Your task to perform on an android device: Turn off the flashlight Image 0: 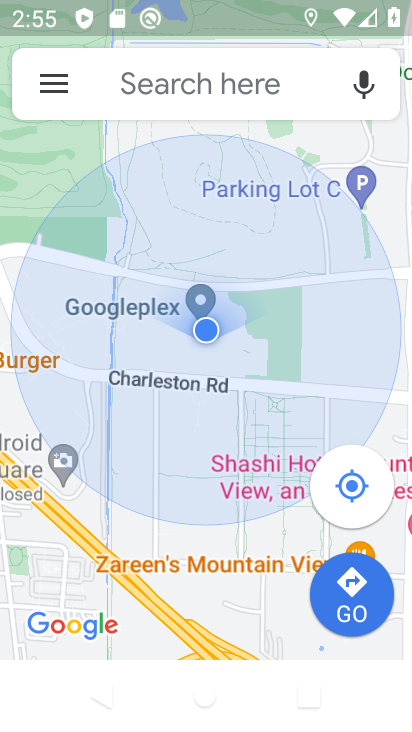
Step 0: press home button
Your task to perform on an android device: Turn off the flashlight Image 1: 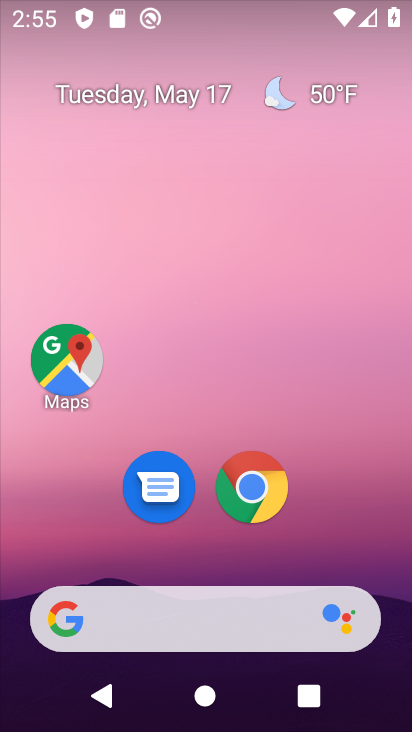
Step 1: drag from (228, 15) to (341, 554)
Your task to perform on an android device: Turn off the flashlight Image 2: 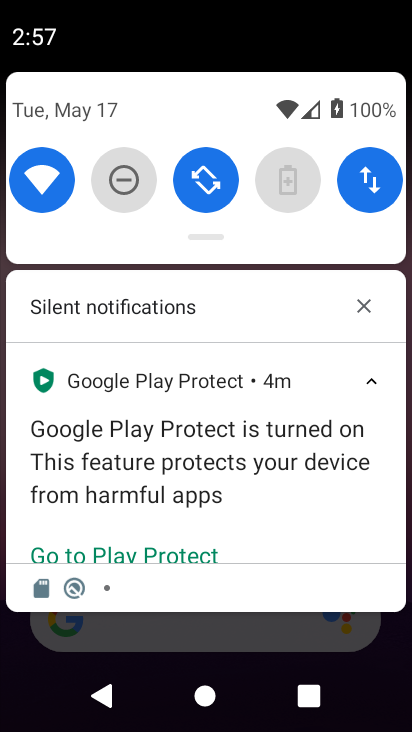
Step 2: drag from (201, 236) to (196, 446)
Your task to perform on an android device: Turn off the flashlight Image 3: 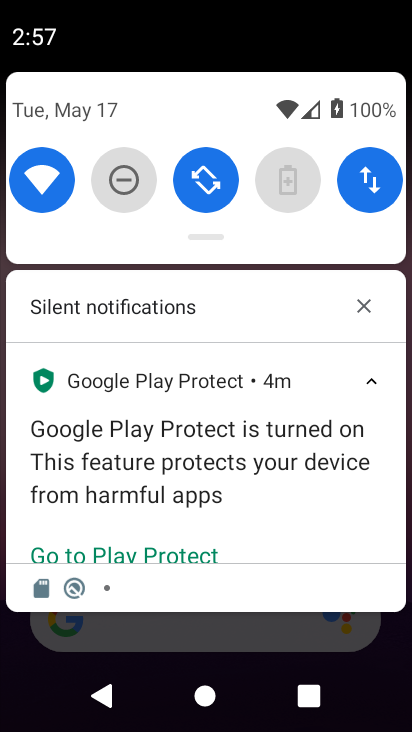
Step 3: drag from (208, 236) to (216, 594)
Your task to perform on an android device: Turn off the flashlight Image 4: 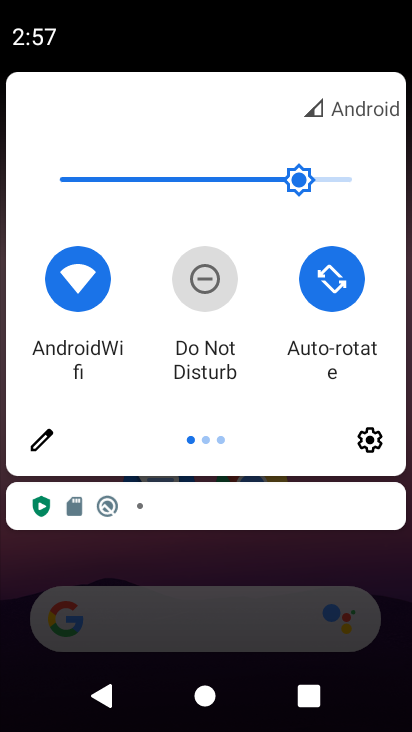
Step 4: click (45, 432)
Your task to perform on an android device: Turn off the flashlight Image 5: 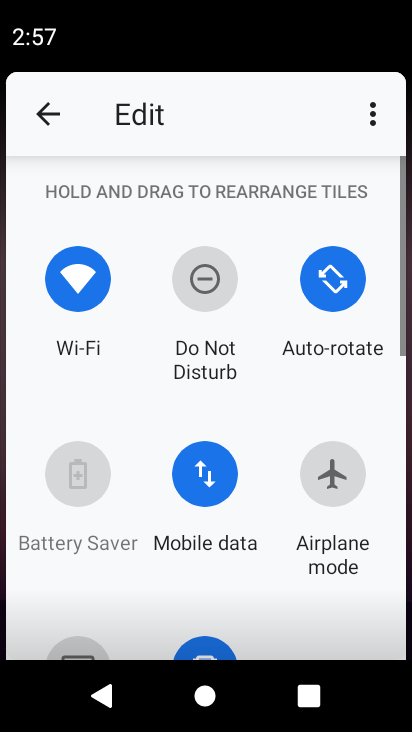
Step 5: task complete